Your task to perform on an android device: Open internet settings Image 0: 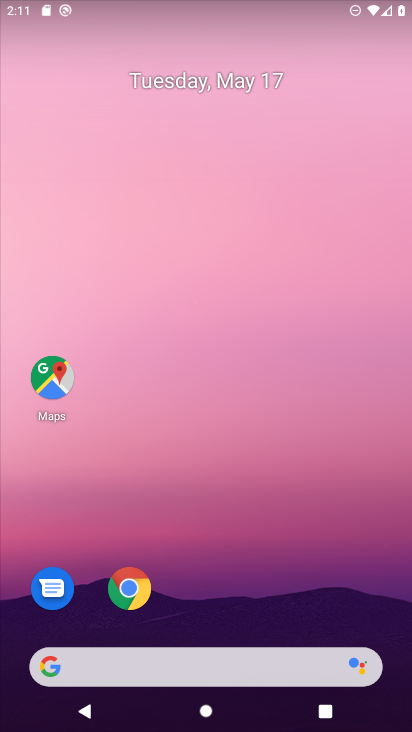
Step 0: drag from (168, 603) to (95, 134)
Your task to perform on an android device: Open internet settings Image 1: 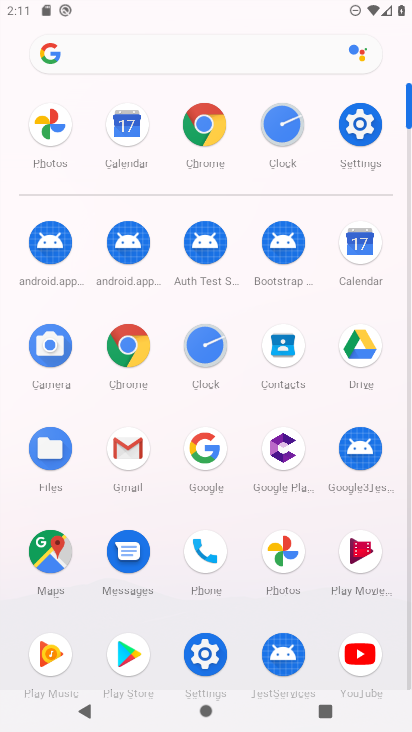
Step 1: click (346, 113)
Your task to perform on an android device: Open internet settings Image 2: 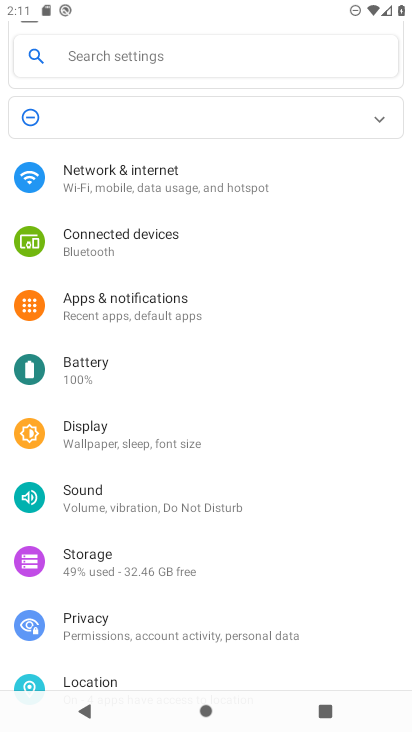
Step 2: click (168, 183)
Your task to perform on an android device: Open internet settings Image 3: 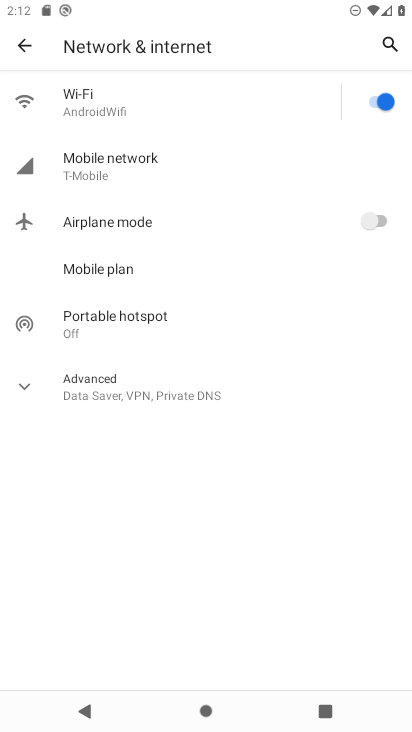
Step 3: task complete